Your task to perform on an android device: Turn on the flashlight Image 0: 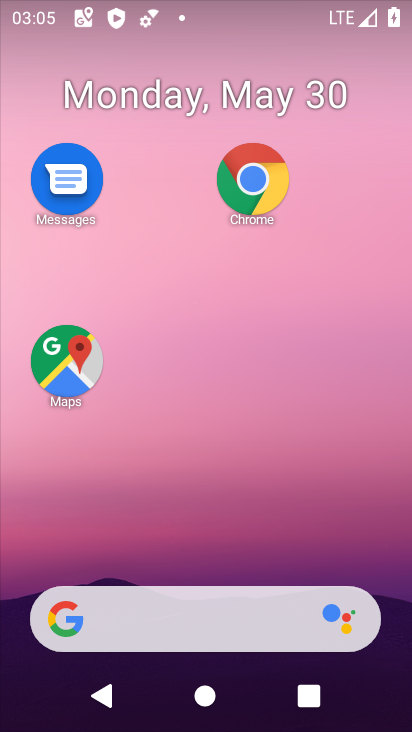
Step 0: drag from (203, 562) to (185, 108)
Your task to perform on an android device: Turn on the flashlight Image 1: 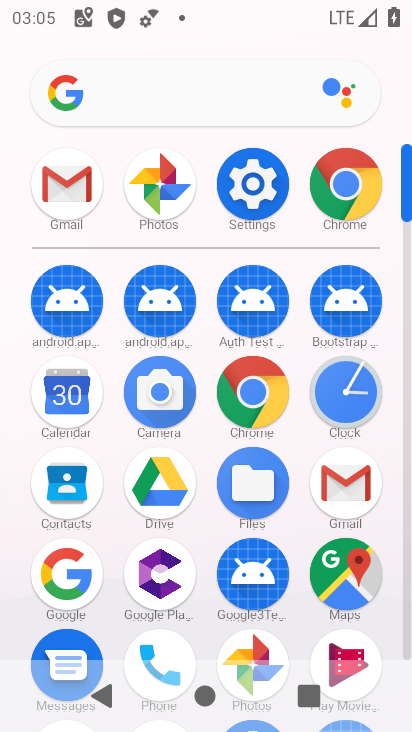
Step 1: click (251, 178)
Your task to perform on an android device: Turn on the flashlight Image 2: 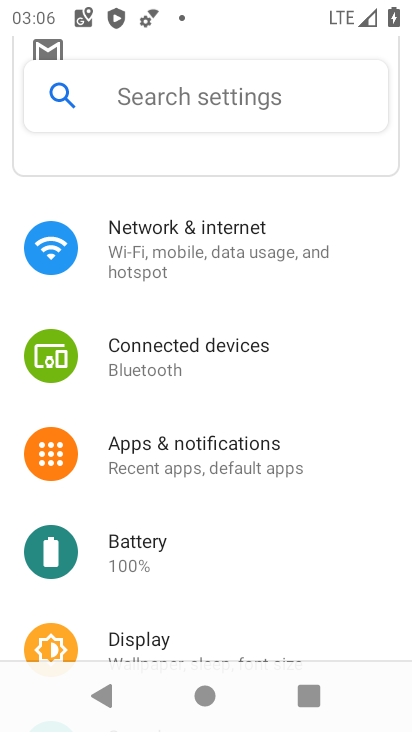
Step 2: task complete